Your task to perform on an android device: turn on wifi Image 0: 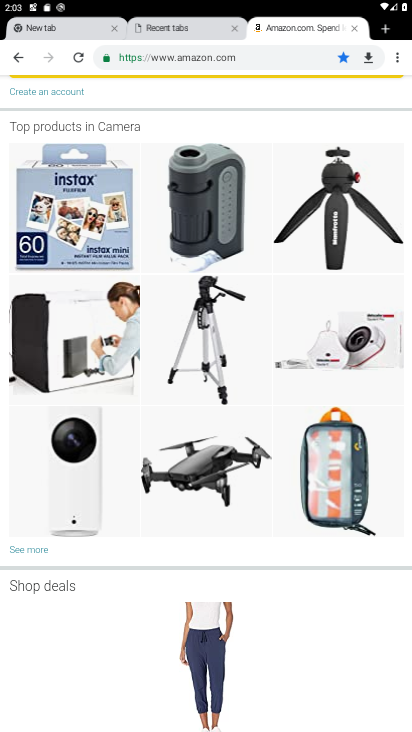
Step 0: press home button
Your task to perform on an android device: turn on wifi Image 1: 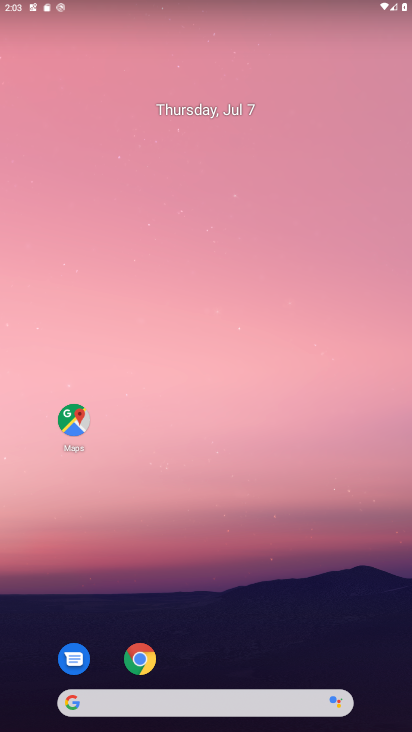
Step 1: drag from (198, 643) to (289, 190)
Your task to perform on an android device: turn on wifi Image 2: 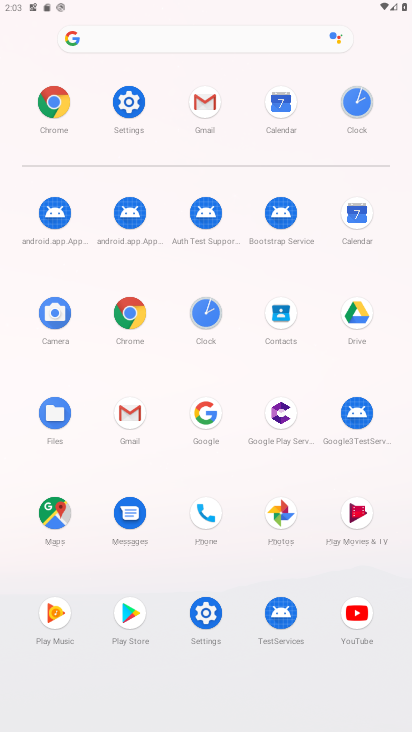
Step 2: click (130, 101)
Your task to perform on an android device: turn on wifi Image 3: 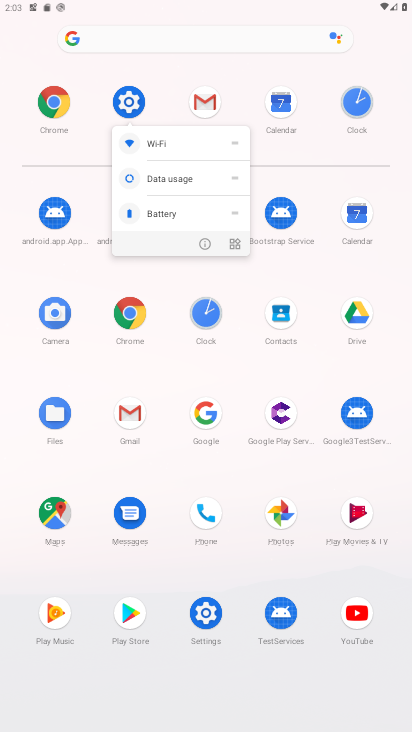
Step 3: click (212, 240)
Your task to perform on an android device: turn on wifi Image 4: 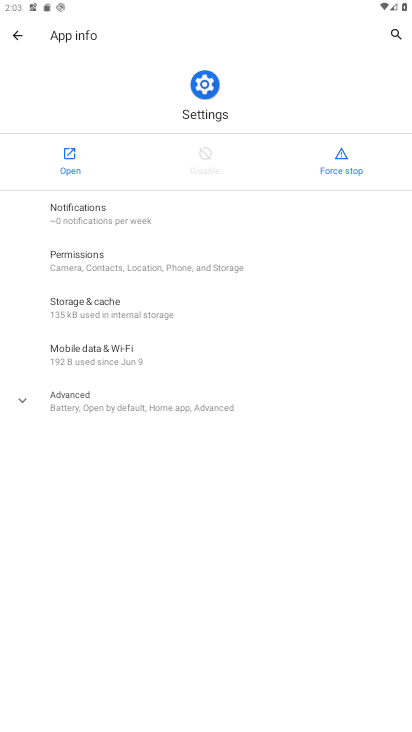
Step 4: click (75, 155)
Your task to perform on an android device: turn on wifi Image 5: 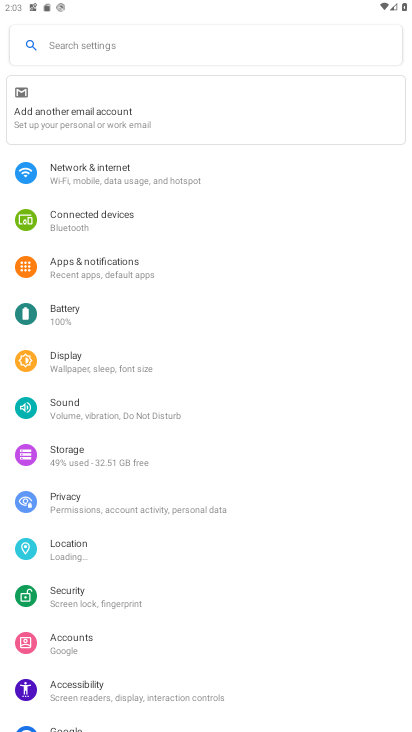
Step 5: click (90, 165)
Your task to perform on an android device: turn on wifi Image 6: 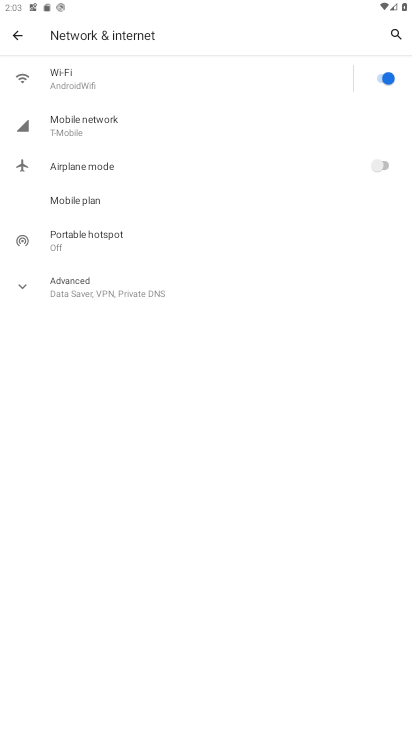
Step 6: click (169, 79)
Your task to perform on an android device: turn on wifi Image 7: 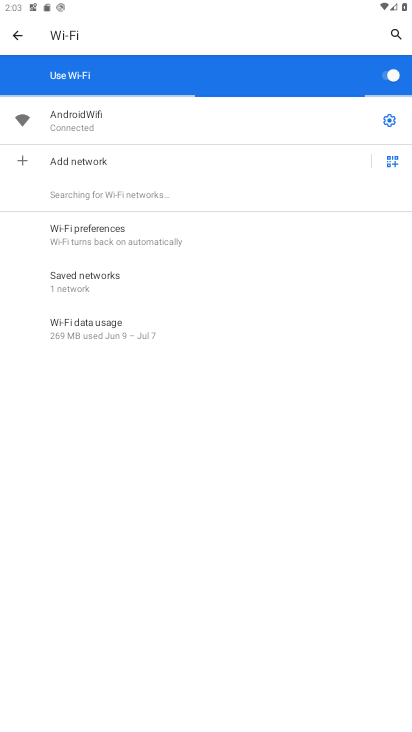
Step 7: task complete